Your task to perform on an android device: turn pop-ups off in chrome Image 0: 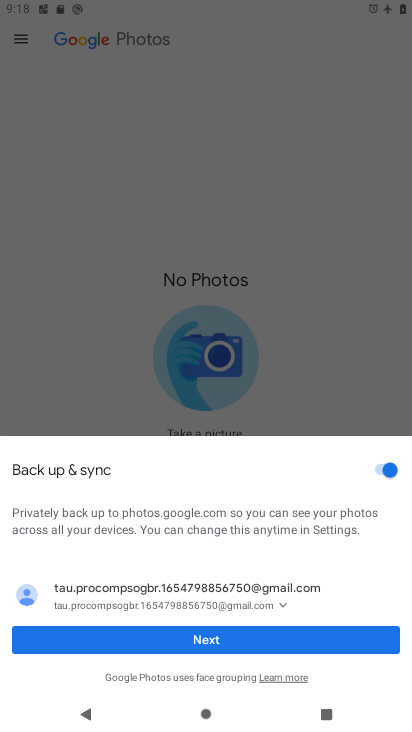
Step 0: press home button
Your task to perform on an android device: turn pop-ups off in chrome Image 1: 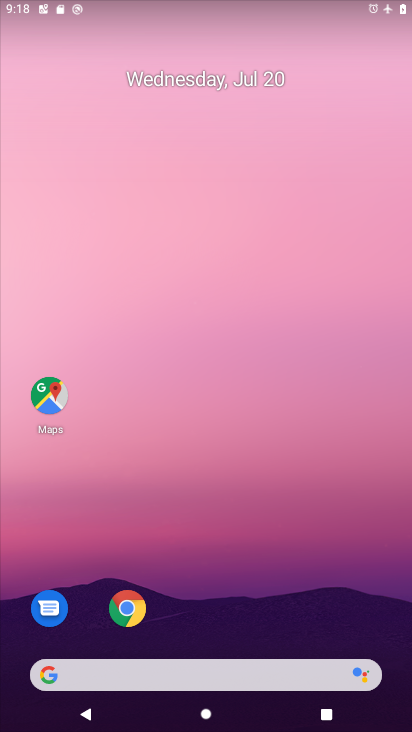
Step 1: drag from (233, 487) to (229, 234)
Your task to perform on an android device: turn pop-ups off in chrome Image 2: 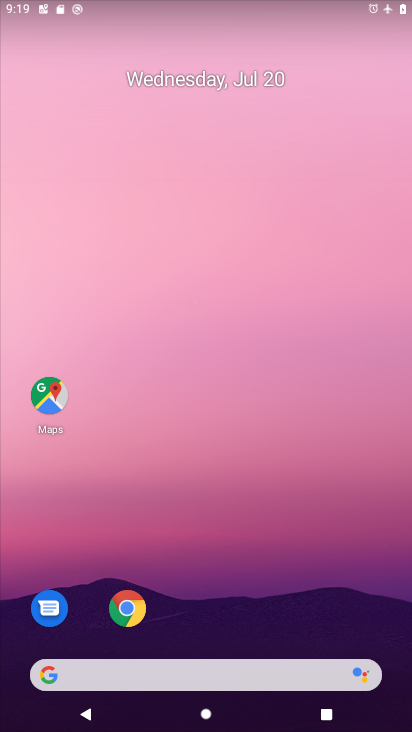
Step 2: drag from (239, 567) to (241, 285)
Your task to perform on an android device: turn pop-ups off in chrome Image 3: 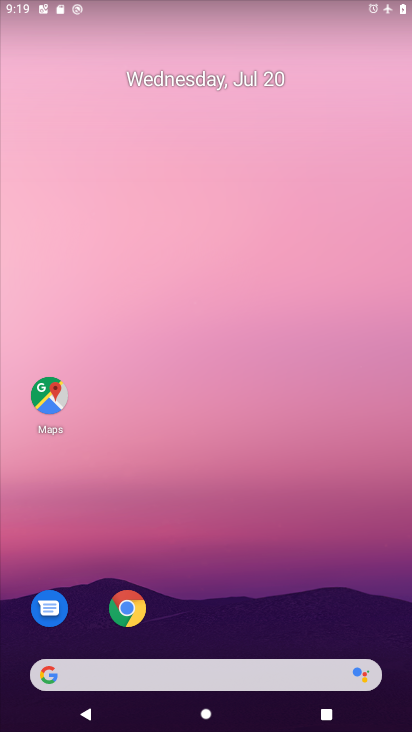
Step 3: drag from (264, 679) to (243, 186)
Your task to perform on an android device: turn pop-ups off in chrome Image 4: 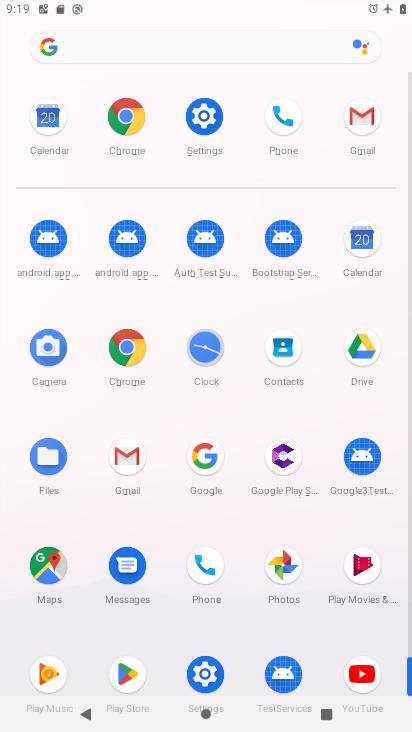
Step 4: click (129, 112)
Your task to perform on an android device: turn pop-ups off in chrome Image 5: 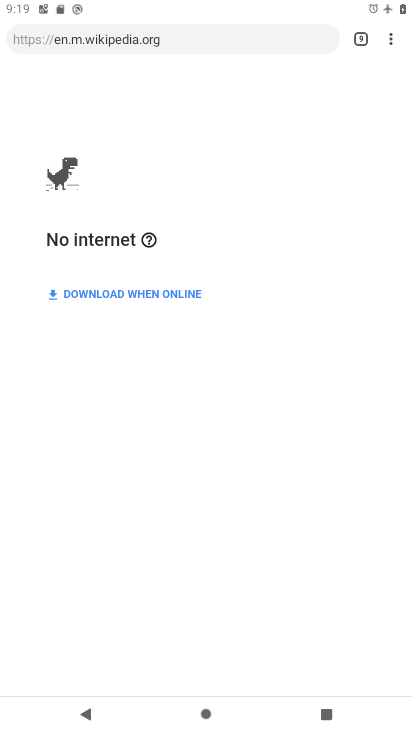
Step 5: click (396, 35)
Your task to perform on an android device: turn pop-ups off in chrome Image 6: 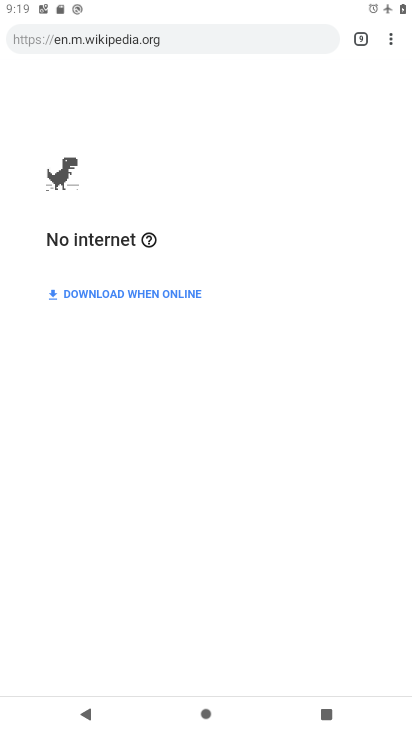
Step 6: click (396, 35)
Your task to perform on an android device: turn pop-ups off in chrome Image 7: 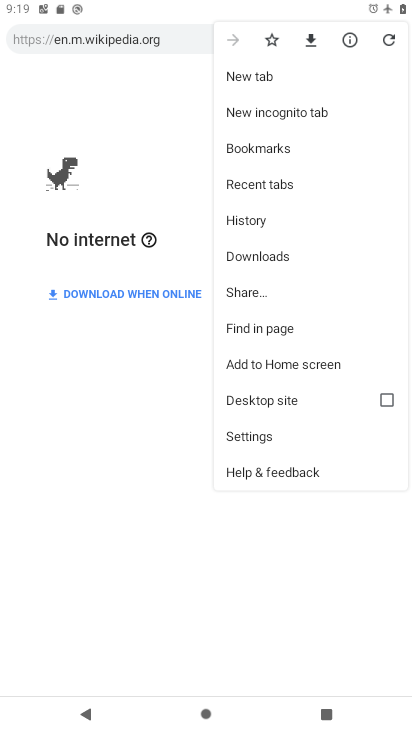
Step 7: click (265, 430)
Your task to perform on an android device: turn pop-ups off in chrome Image 8: 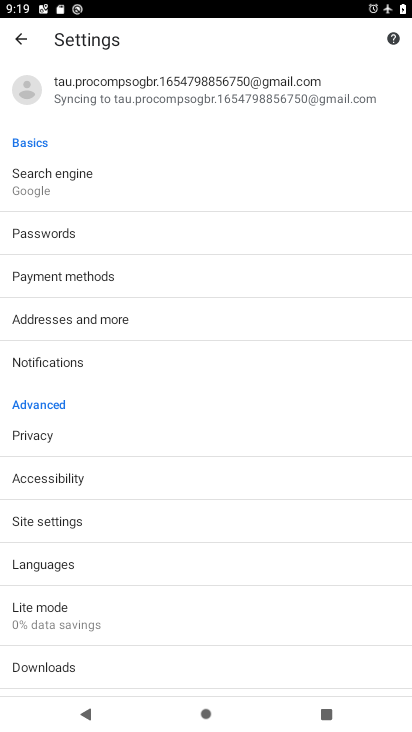
Step 8: click (79, 516)
Your task to perform on an android device: turn pop-ups off in chrome Image 9: 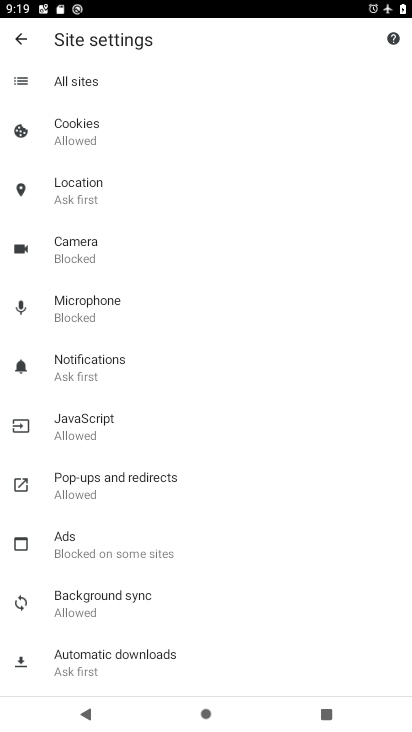
Step 9: click (145, 487)
Your task to perform on an android device: turn pop-ups off in chrome Image 10: 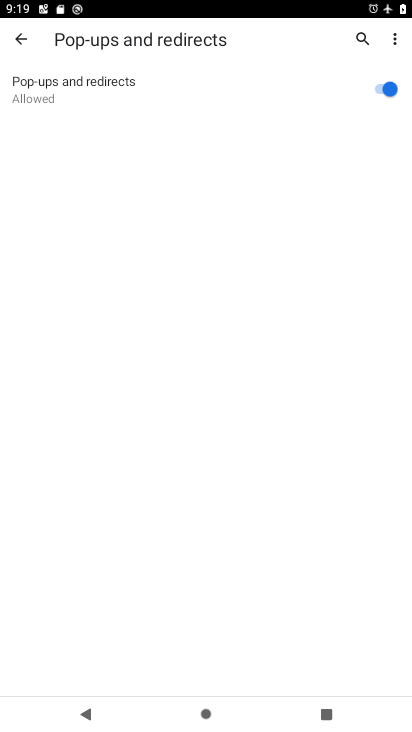
Step 10: click (392, 83)
Your task to perform on an android device: turn pop-ups off in chrome Image 11: 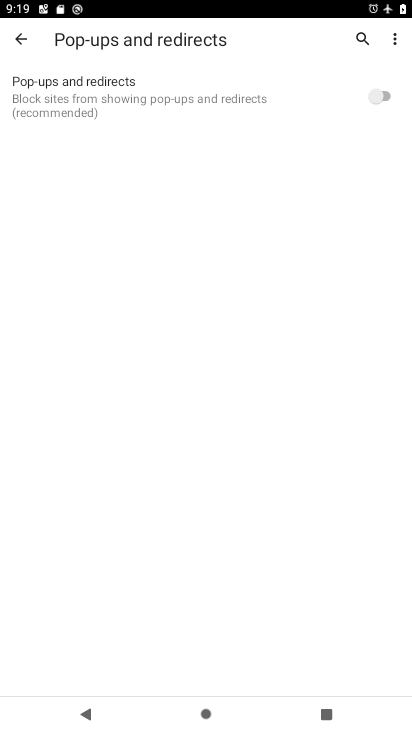
Step 11: task complete